Your task to perform on an android device: open app "Google Home" (install if not already installed) Image 0: 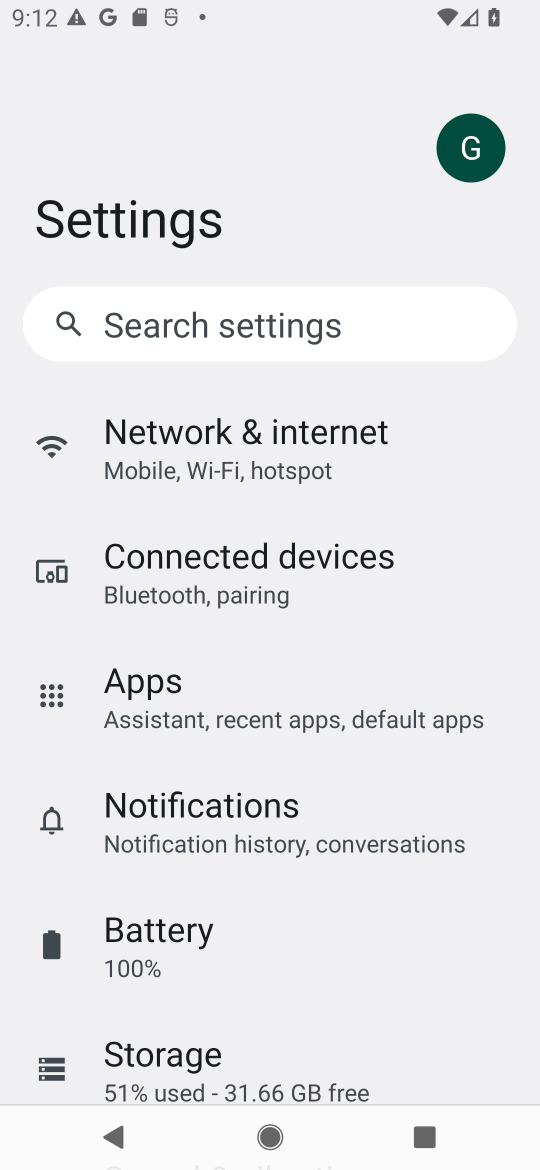
Step 0: press home button
Your task to perform on an android device: open app "Google Home" (install if not already installed) Image 1: 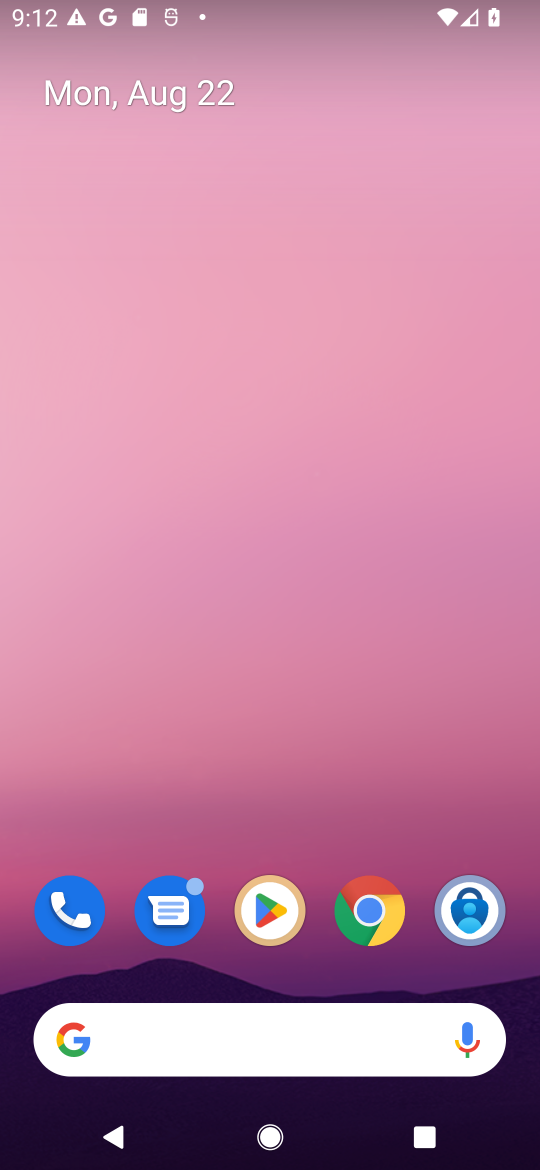
Step 1: click (245, 912)
Your task to perform on an android device: open app "Google Home" (install if not already installed) Image 2: 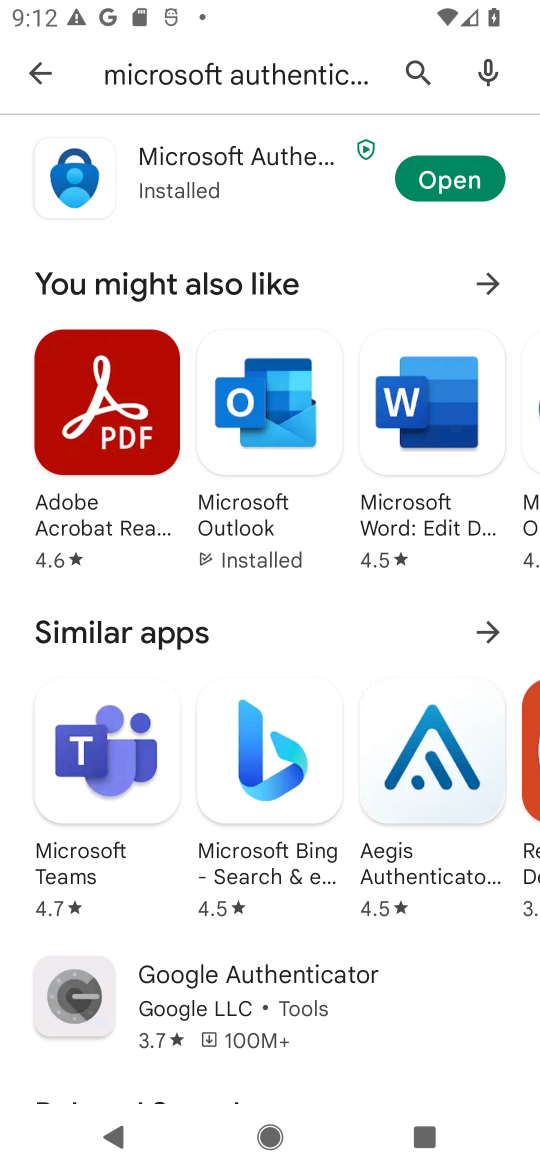
Step 2: click (404, 67)
Your task to perform on an android device: open app "Google Home" (install if not already installed) Image 3: 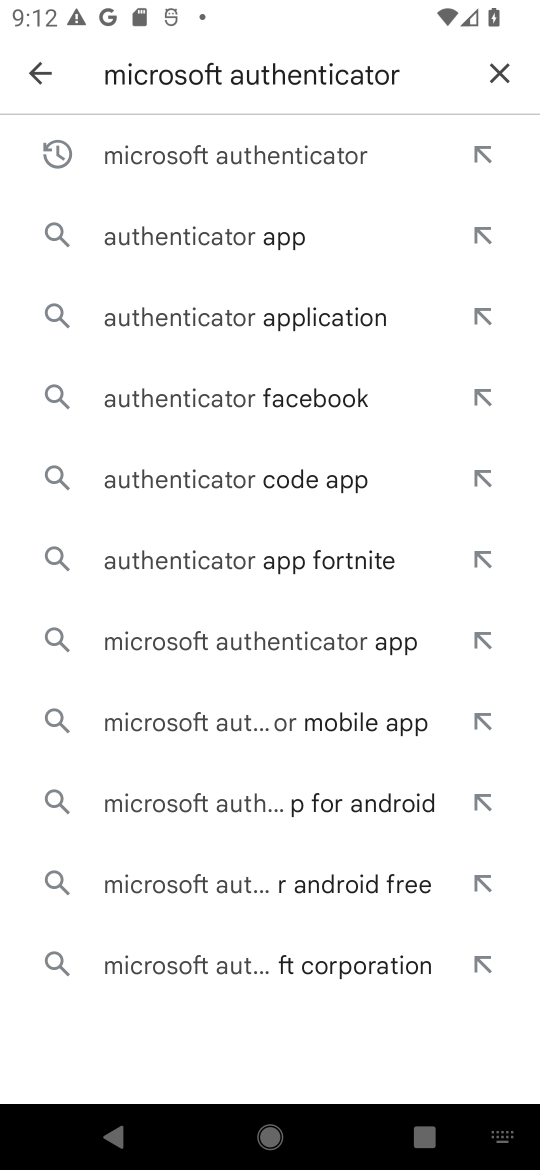
Step 3: click (487, 76)
Your task to perform on an android device: open app "Google Home" (install if not already installed) Image 4: 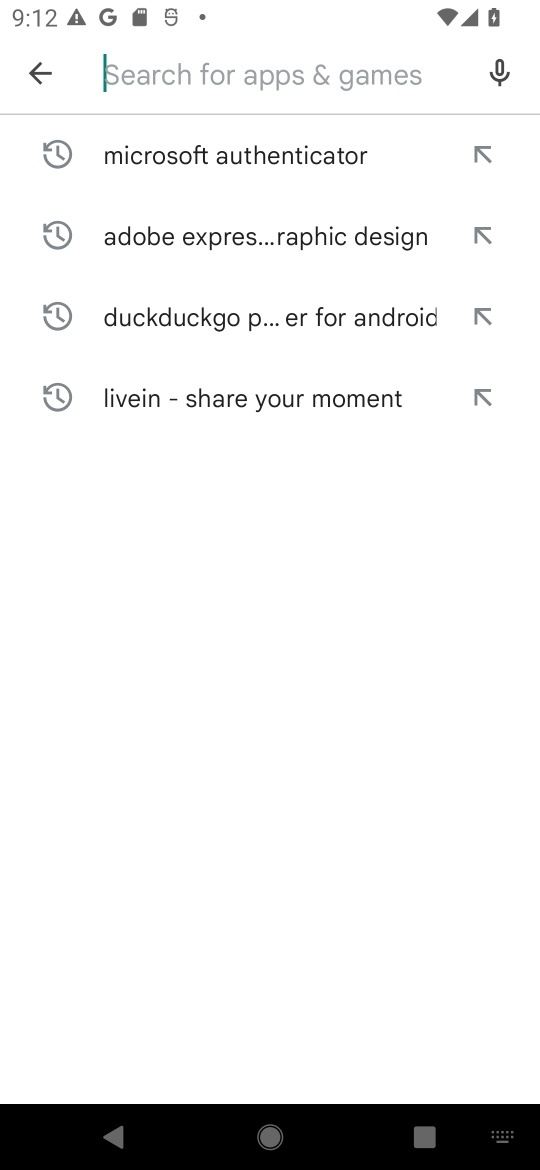
Step 4: type "Google Home"
Your task to perform on an android device: open app "Google Home" (install if not already installed) Image 5: 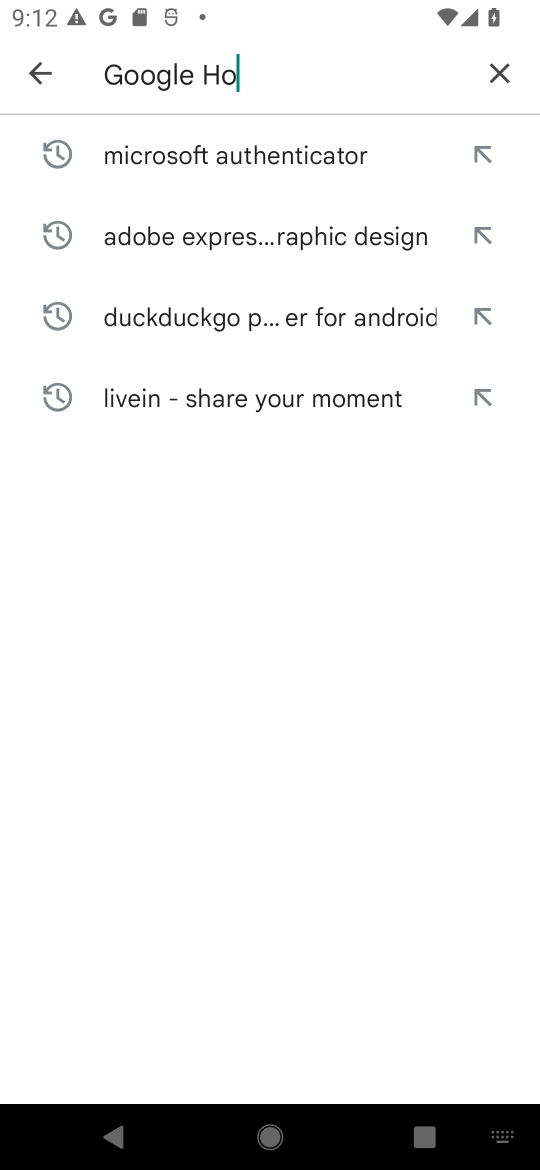
Step 5: type ""
Your task to perform on an android device: open app "Google Home" (install if not already installed) Image 6: 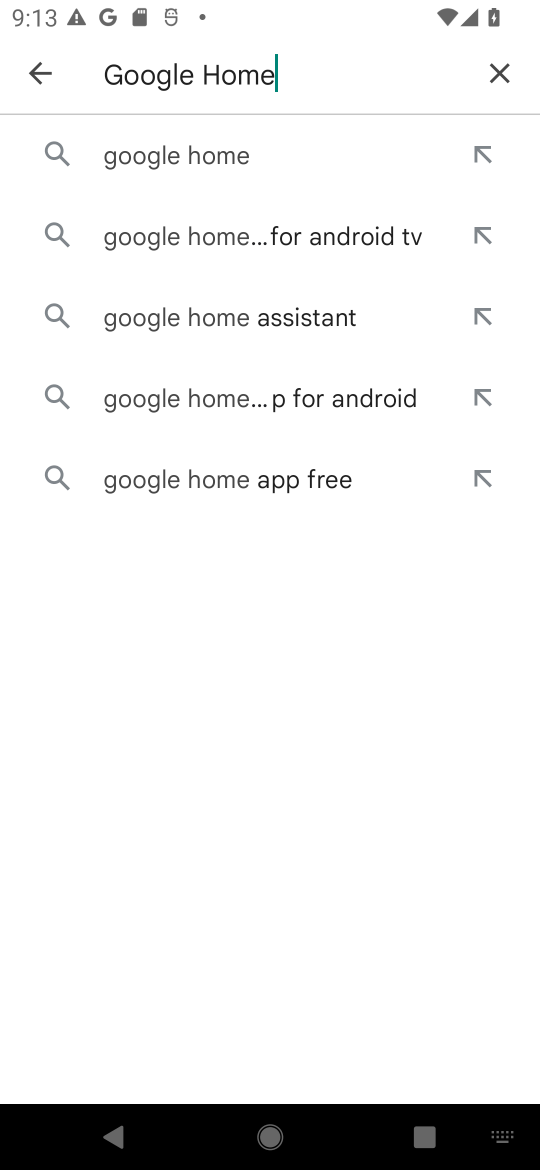
Step 6: click (198, 163)
Your task to perform on an android device: open app "Google Home" (install if not already installed) Image 7: 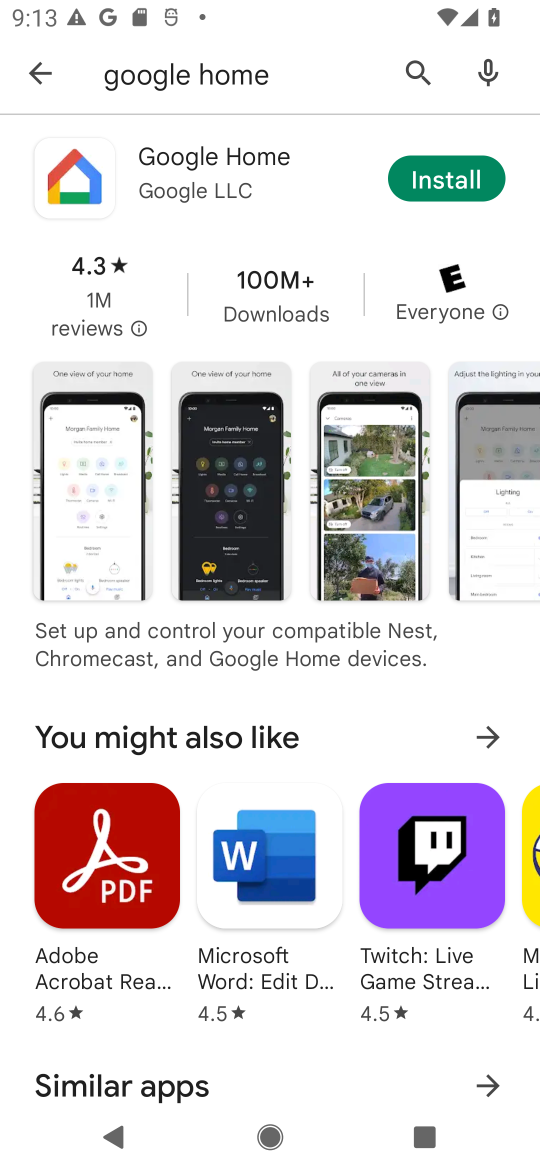
Step 7: click (447, 178)
Your task to perform on an android device: open app "Google Home" (install if not already installed) Image 8: 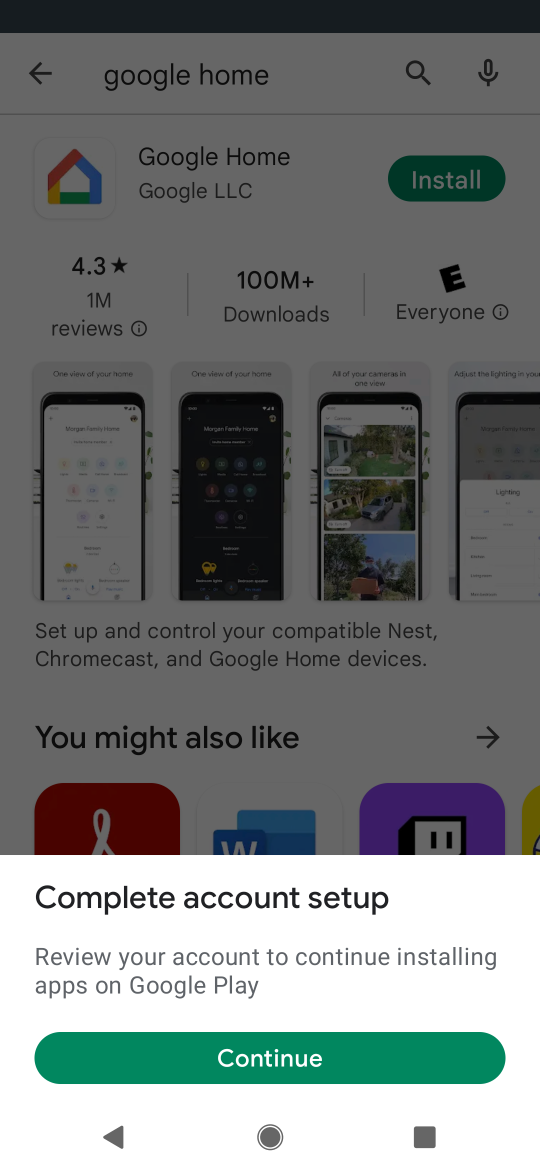
Step 8: click (314, 1063)
Your task to perform on an android device: open app "Google Home" (install if not already installed) Image 9: 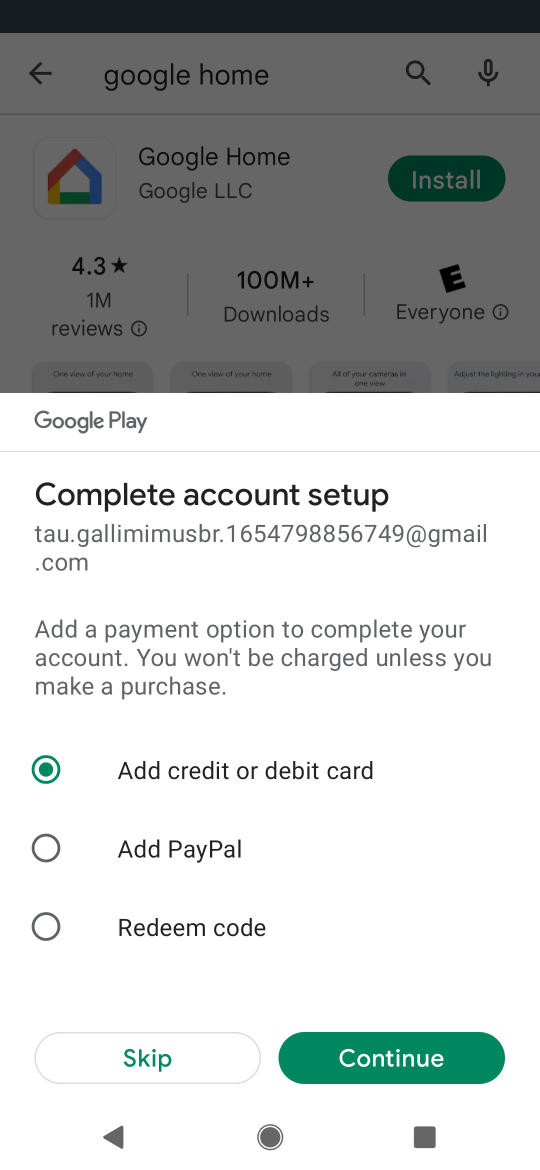
Step 9: click (173, 1047)
Your task to perform on an android device: open app "Google Home" (install if not already installed) Image 10: 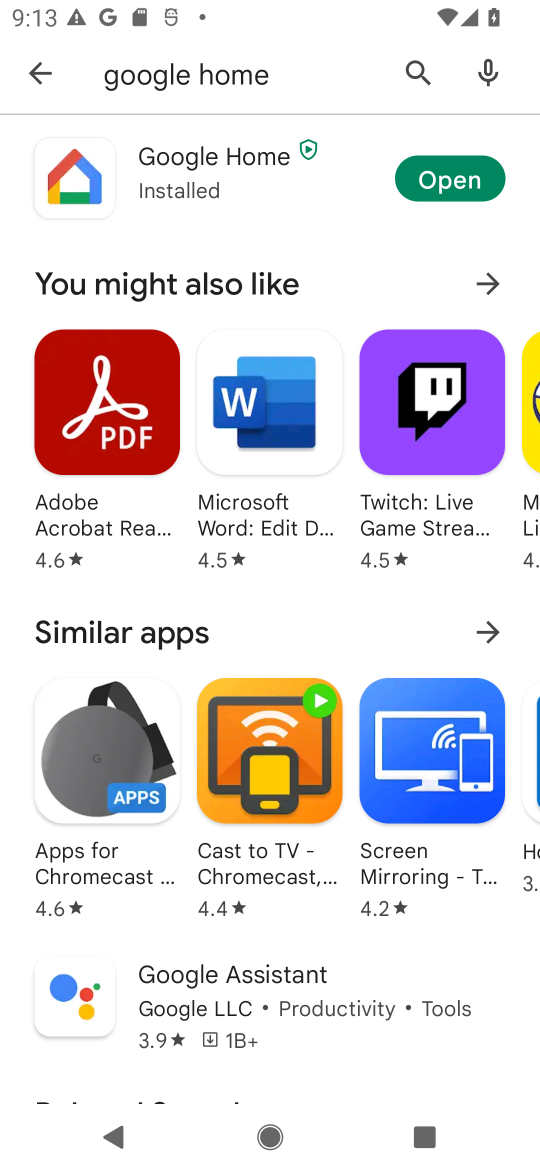
Step 10: click (416, 174)
Your task to perform on an android device: open app "Google Home" (install if not already installed) Image 11: 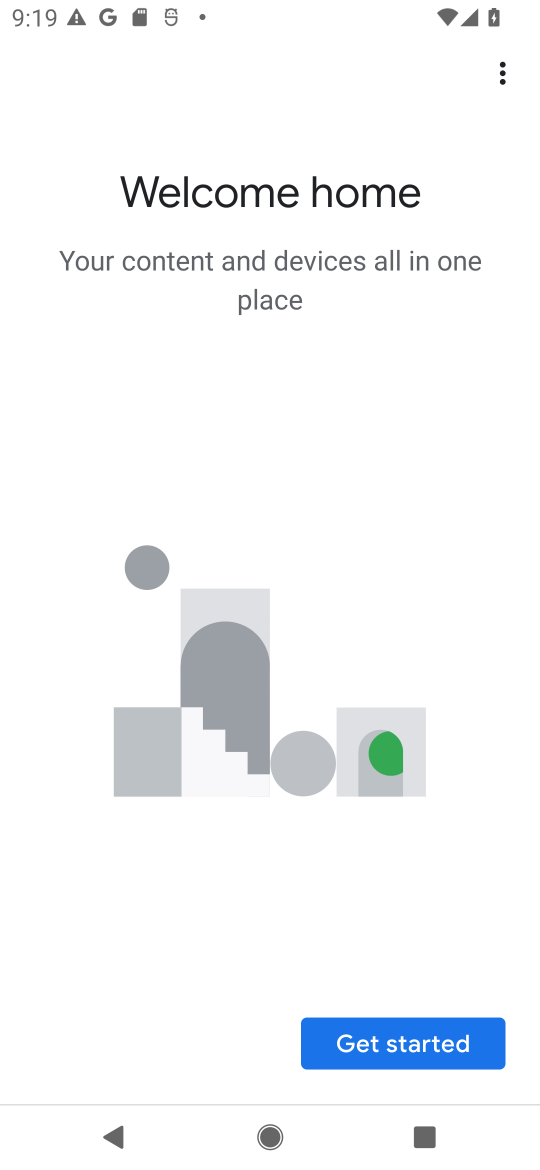
Step 11: task complete